Your task to perform on an android device: Show me productivity apps on the Play Store Image 0: 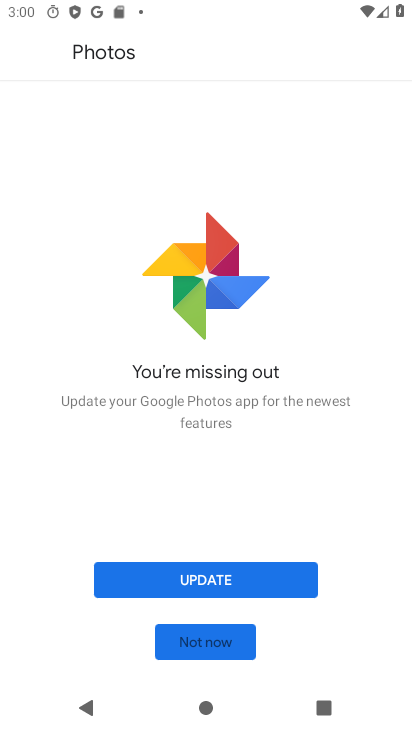
Step 0: press home button
Your task to perform on an android device: Show me productivity apps on the Play Store Image 1: 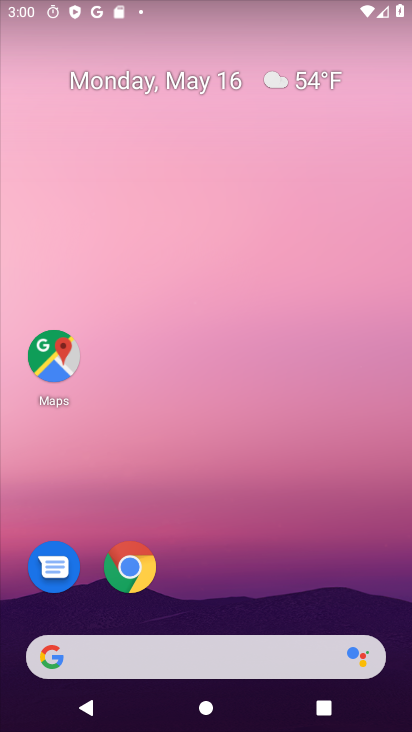
Step 1: drag from (245, 583) to (255, 91)
Your task to perform on an android device: Show me productivity apps on the Play Store Image 2: 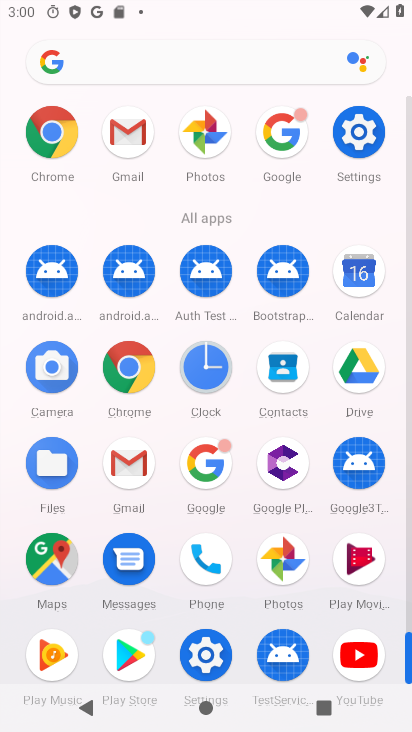
Step 2: click (127, 653)
Your task to perform on an android device: Show me productivity apps on the Play Store Image 3: 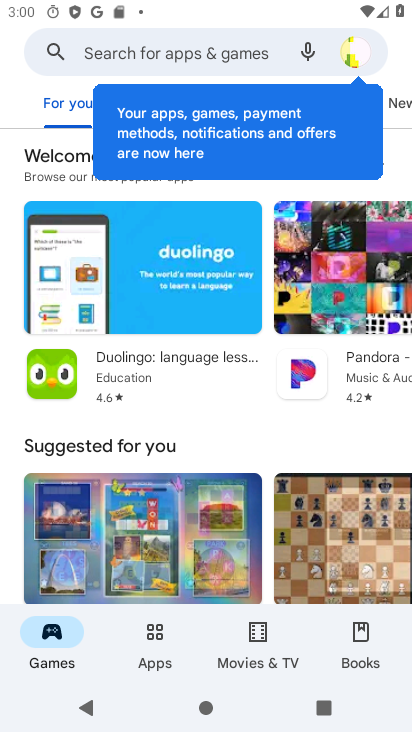
Step 3: click (160, 644)
Your task to perform on an android device: Show me productivity apps on the Play Store Image 4: 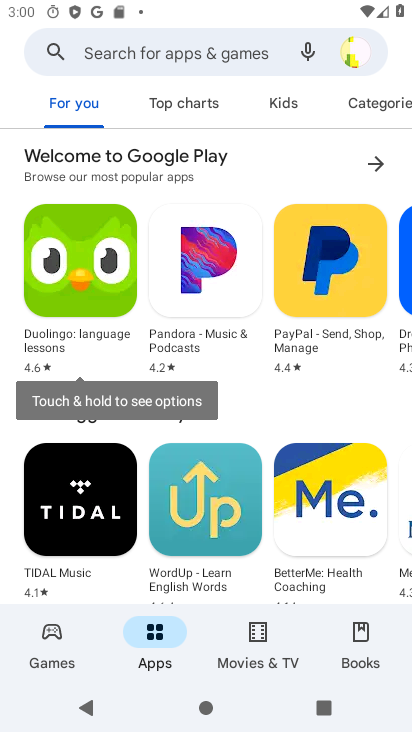
Step 4: click (365, 104)
Your task to perform on an android device: Show me productivity apps on the Play Store Image 5: 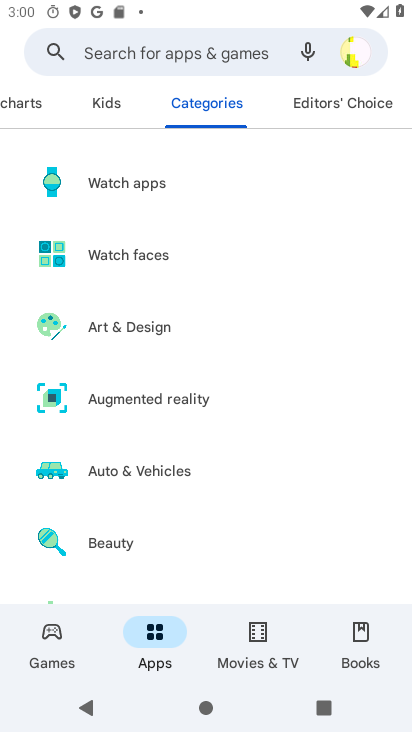
Step 5: drag from (146, 497) to (202, 404)
Your task to perform on an android device: Show me productivity apps on the Play Store Image 6: 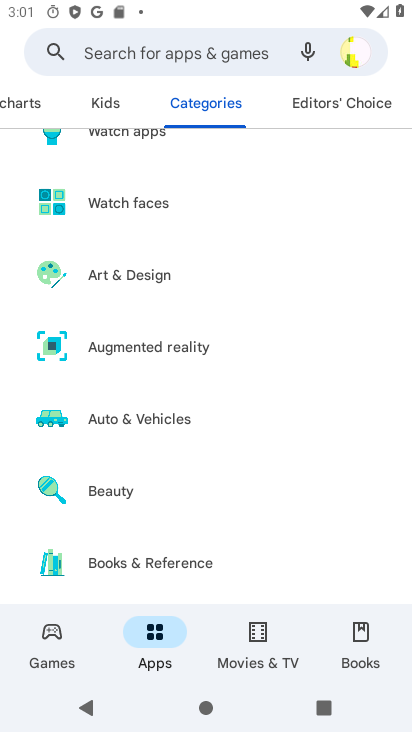
Step 6: drag from (129, 507) to (183, 426)
Your task to perform on an android device: Show me productivity apps on the Play Store Image 7: 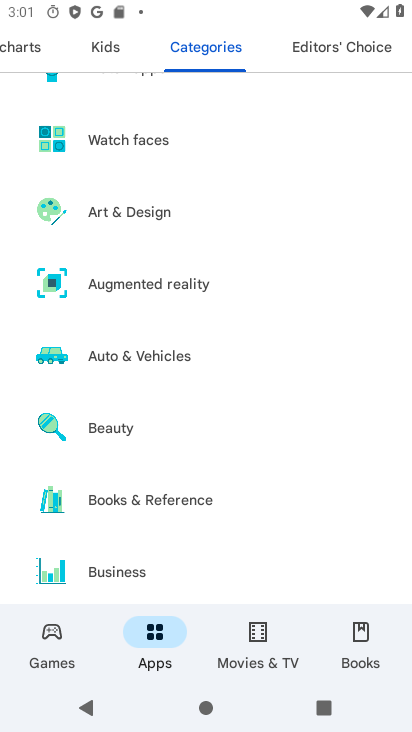
Step 7: drag from (106, 519) to (171, 424)
Your task to perform on an android device: Show me productivity apps on the Play Store Image 8: 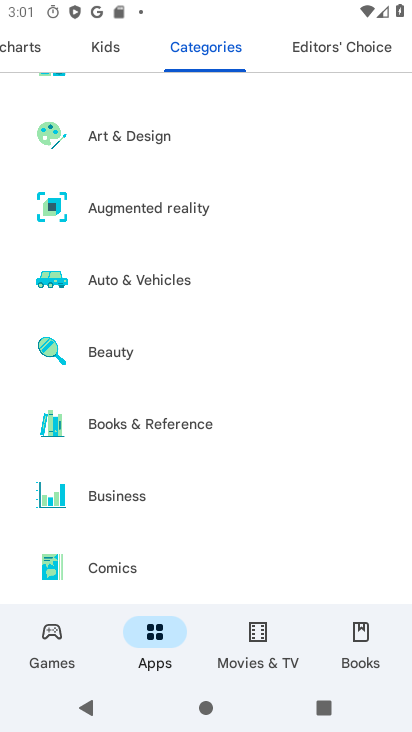
Step 8: drag from (130, 518) to (191, 413)
Your task to perform on an android device: Show me productivity apps on the Play Store Image 9: 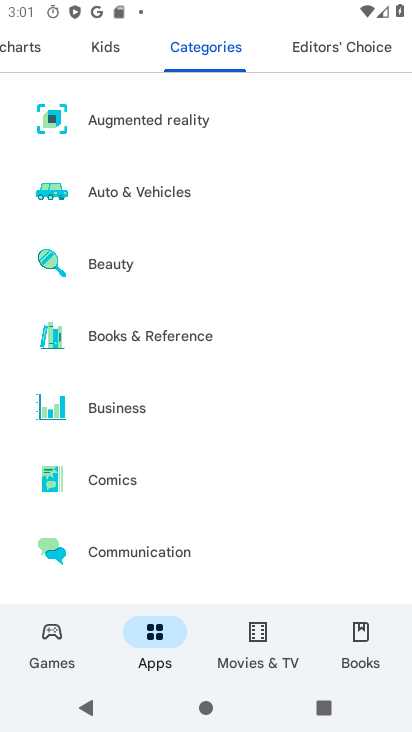
Step 9: drag from (97, 529) to (170, 408)
Your task to perform on an android device: Show me productivity apps on the Play Store Image 10: 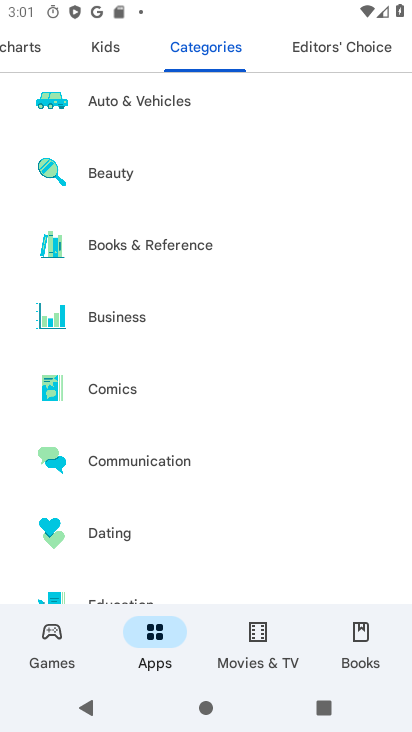
Step 10: drag from (121, 480) to (176, 384)
Your task to perform on an android device: Show me productivity apps on the Play Store Image 11: 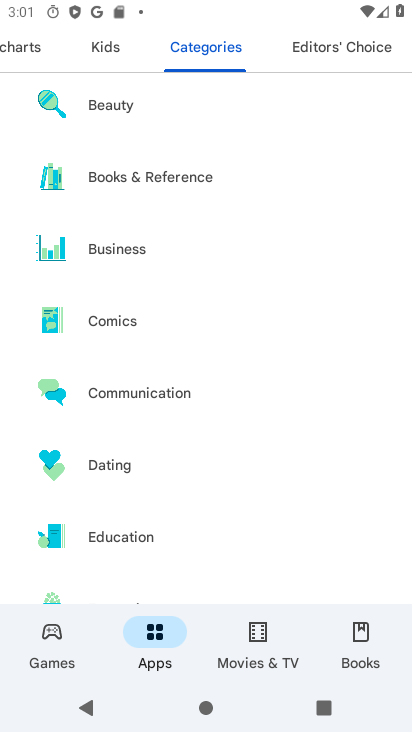
Step 11: drag from (120, 479) to (208, 364)
Your task to perform on an android device: Show me productivity apps on the Play Store Image 12: 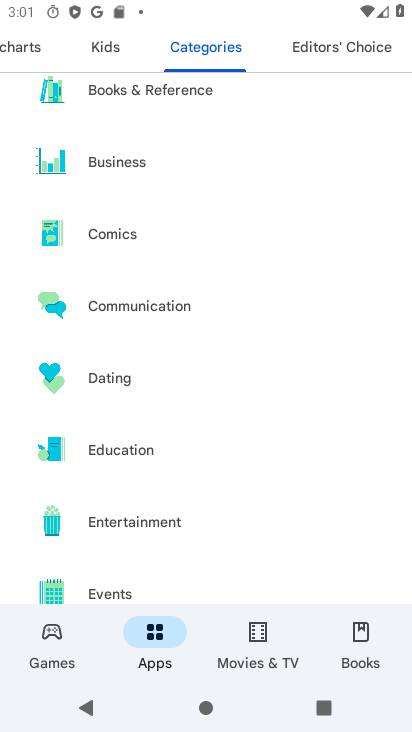
Step 12: drag from (98, 471) to (203, 352)
Your task to perform on an android device: Show me productivity apps on the Play Store Image 13: 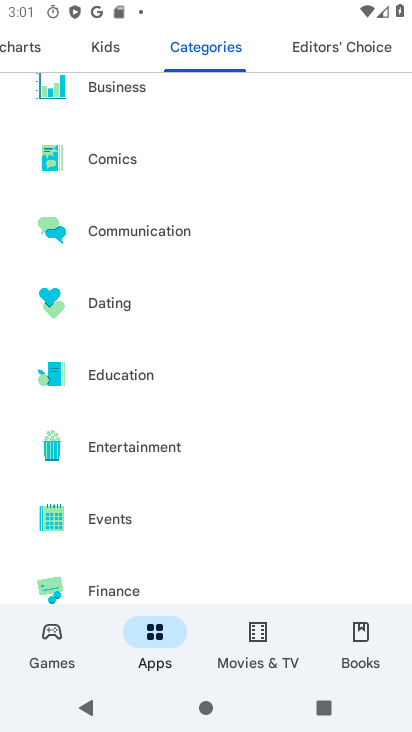
Step 13: drag from (95, 475) to (201, 354)
Your task to perform on an android device: Show me productivity apps on the Play Store Image 14: 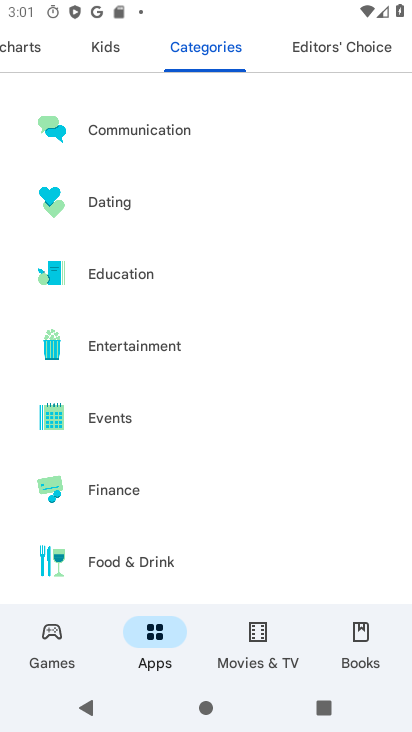
Step 14: drag from (81, 440) to (159, 321)
Your task to perform on an android device: Show me productivity apps on the Play Store Image 15: 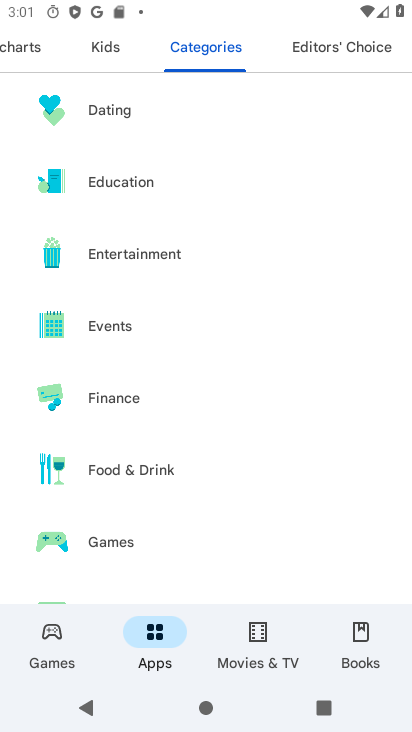
Step 15: drag from (87, 422) to (176, 316)
Your task to perform on an android device: Show me productivity apps on the Play Store Image 16: 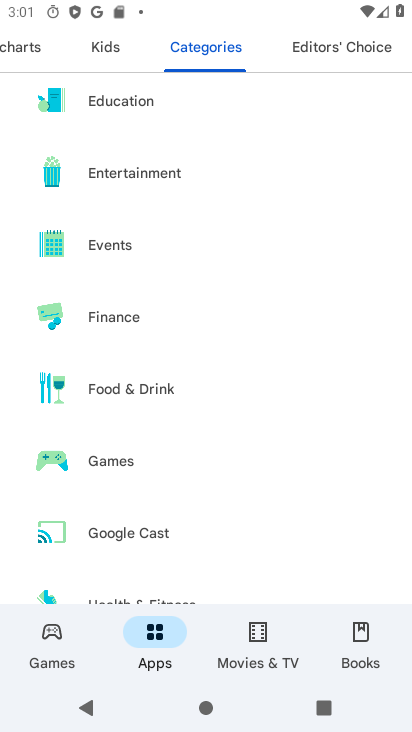
Step 16: drag from (81, 411) to (202, 270)
Your task to perform on an android device: Show me productivity apps on the Play Store Image 17: 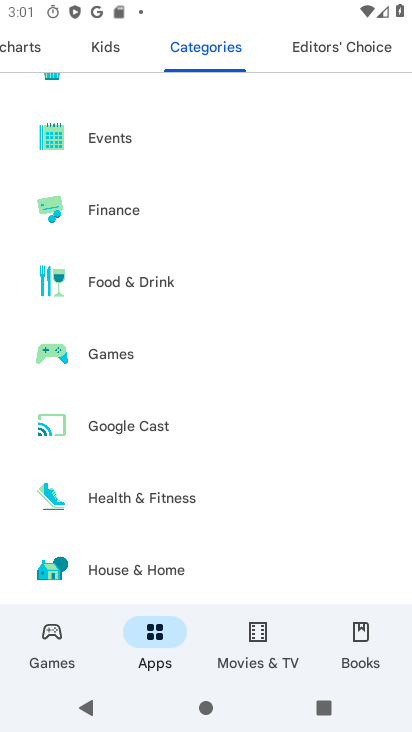
Step 17: drag from (131, 343) to (204, 254)
Your task to perform on an android device: Show me productivity apps on the Play Store Image 18: 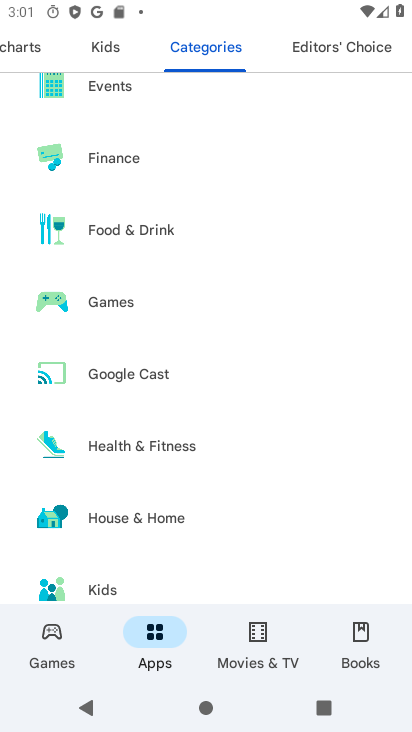
Step 18: drag from (93, 395) to (198, 250)
Your task to perform on an android device: Show me productivity apps on the Play Store Image 19: 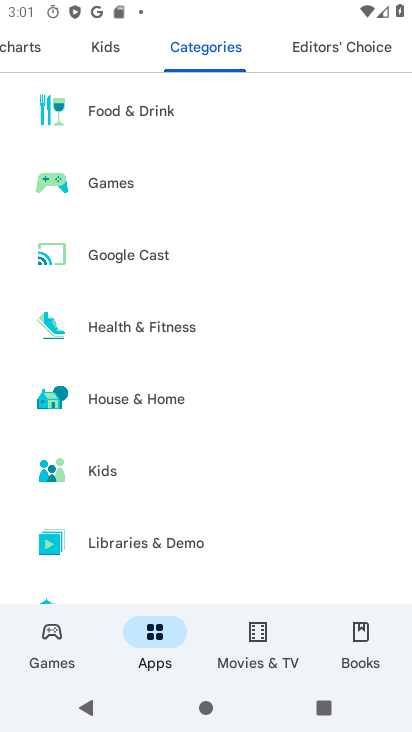
Step 19: drag from (105, 367) to (217, 236)
Your task to perform on an android device: Show me productivity apps on the Play Store Image 20: 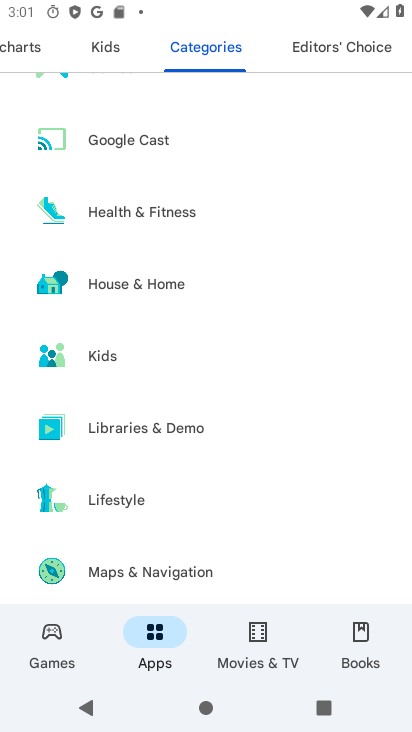
Step 20: drag from (119, 331) to (196, 235)
Your task to perform on an android device: Show me productivity apps on the Play Store Image 21: 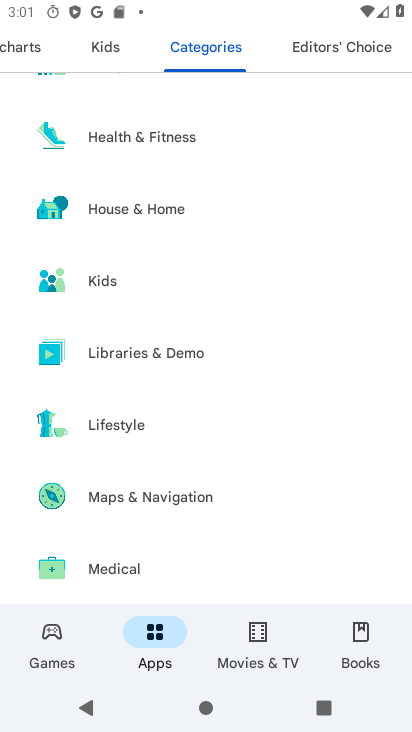
Step 21: drag from (96, 317) to (175, 185)
Your task to perform on an android device: Show me productivity apps on the Play Store Image 22: 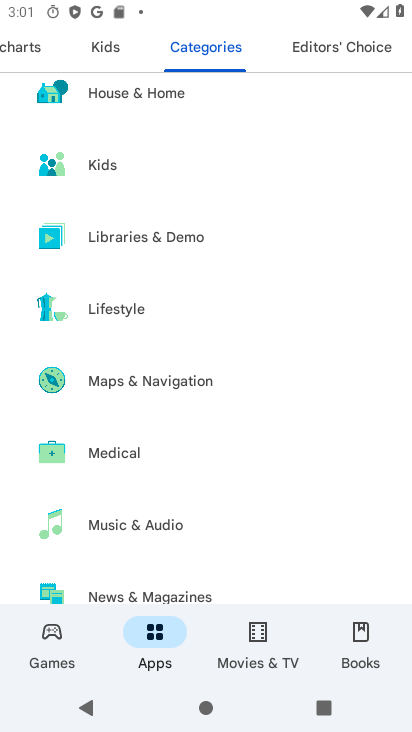
Step 22: drag from (75, 345) to (175, 218)
Your task to perform on an android device: Show me productivity apps on the Play Store Image 23: 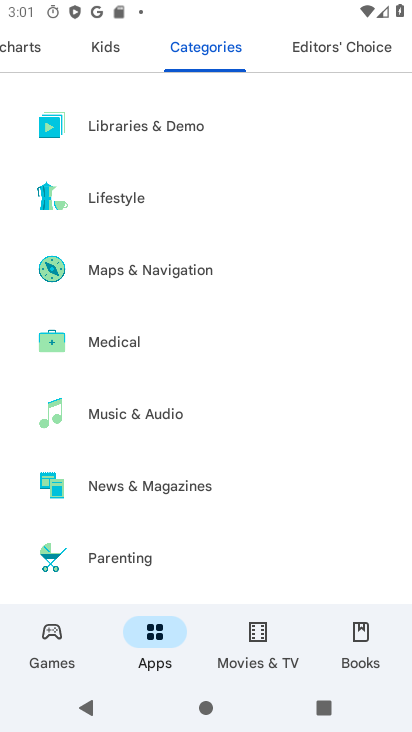
Step 23: drag from (130, 444) to (217, 350)
Your task to perform on an android device: Show me productivity apps on the Play Store Image 24: 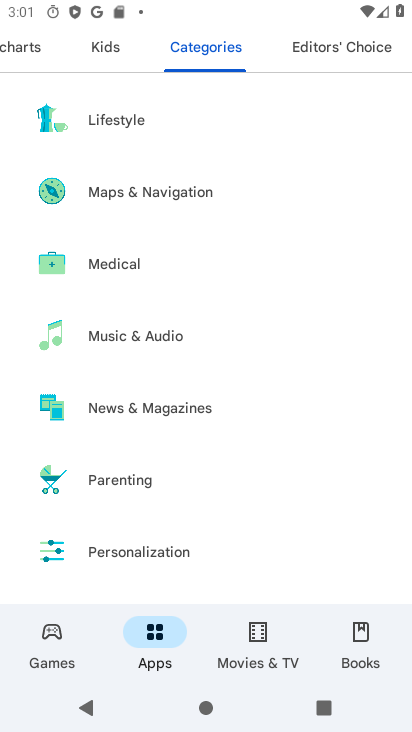
Step 24: drag from (134, 371) to (185, 298)
Your task to perform on an android device: Show me productivity apps on the Play Store Image 25: 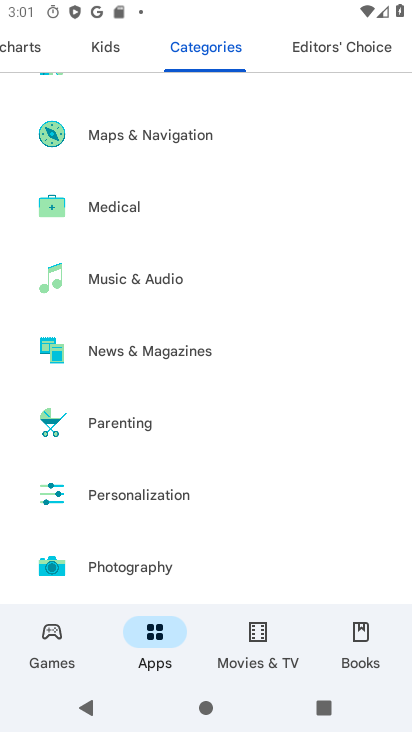
Step 25: drag from (79, 378) to (170, 277)
Your task to perform on an android device: Show me productivity apps on the Play Store Image 26: 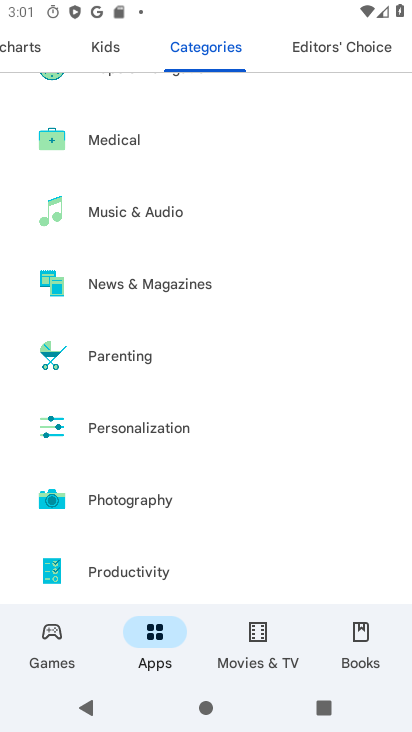
Step 26: drag from (99, 377) to (175, 287)
Your task to perform on an android device: Show me productivity apps on the Play Store Image 27: 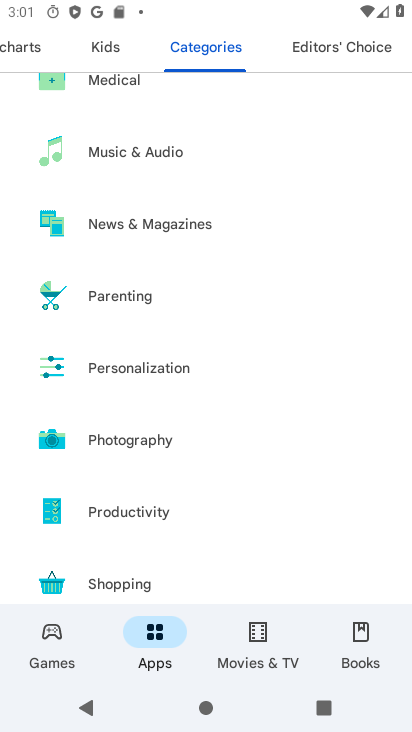
Step 27: drag from (110, 395) to (195, 303)
Your task to perform on an android device: Show me productivity apps on the Play Store Image 28: 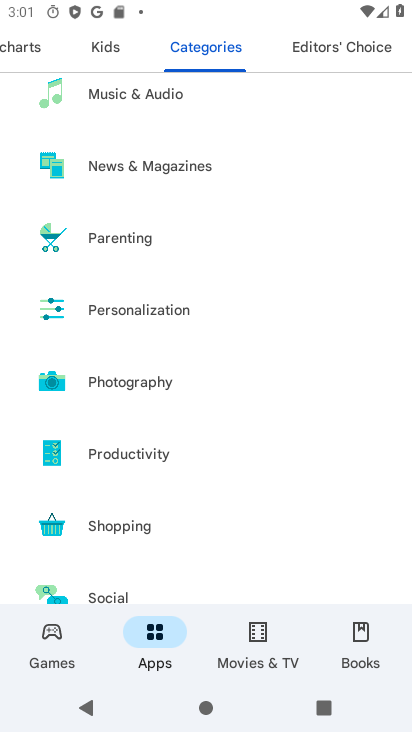
Step 28: click (114, 447)
Your task to perform on an android device: Show me productivity apps on the Play Store Image 29: 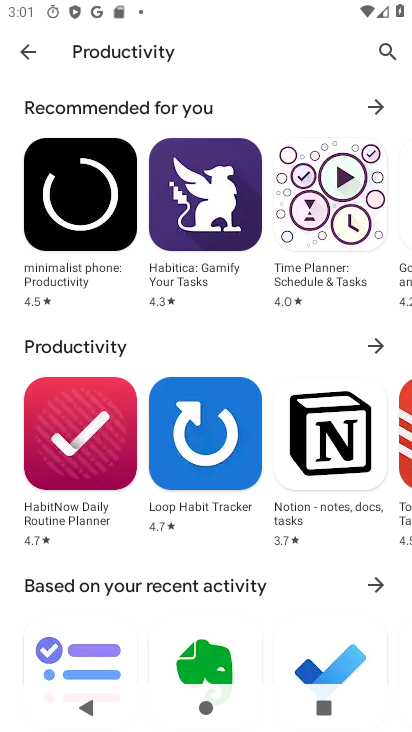
Step 29: task complete